Your task to perform on an android device: Go to display settings Image 0: 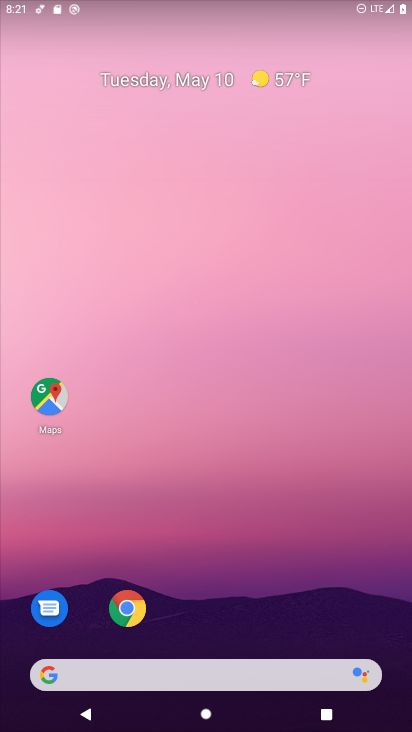
Step 0: drag from (386, 617) to (260, 54)
Your task to perform on an android device: Go to display settings Image 1: 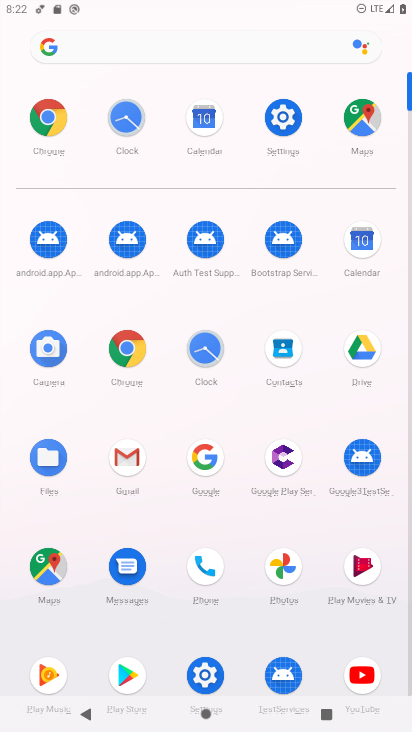
Step 1: click (202, 664)
Your task to perform on an android device: Go to display settings Image 2: 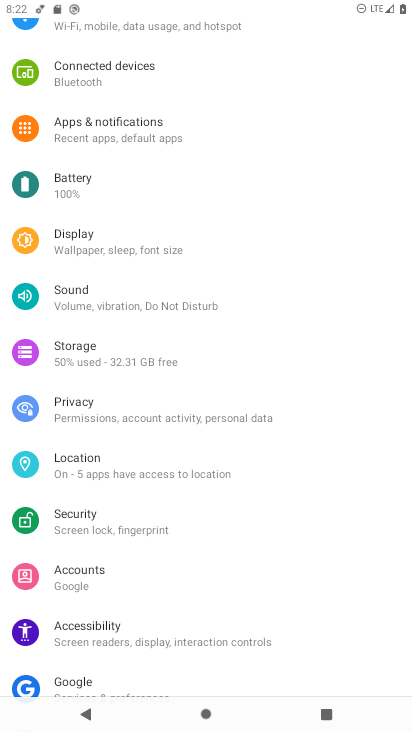
Step 2: click (135, 252)
Your task to perform on an android device: Go to display settings Image 3: 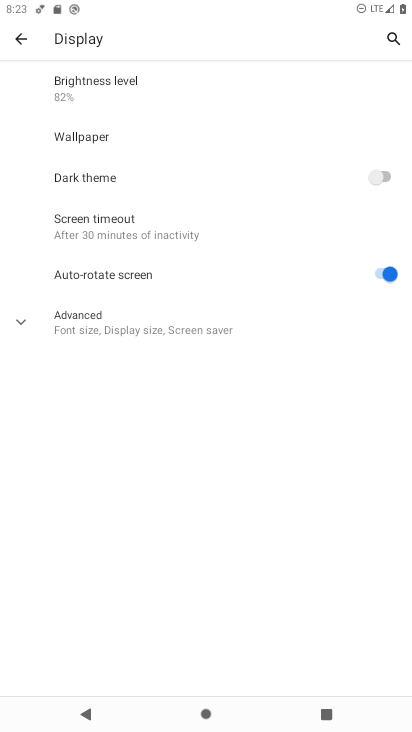
Step 3: task complete